Your task to perform on an android device: Search for Italian restaurants on Maps Image 0: 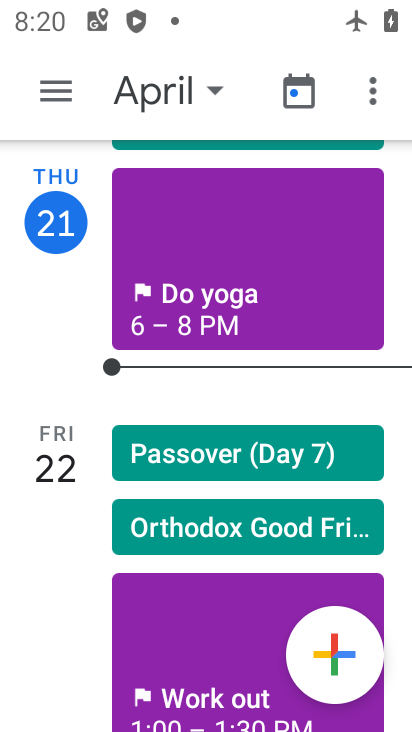
Step 0: press home button
Your task to perform on an android device: Search for Italian restaurants on Maps Image 1: 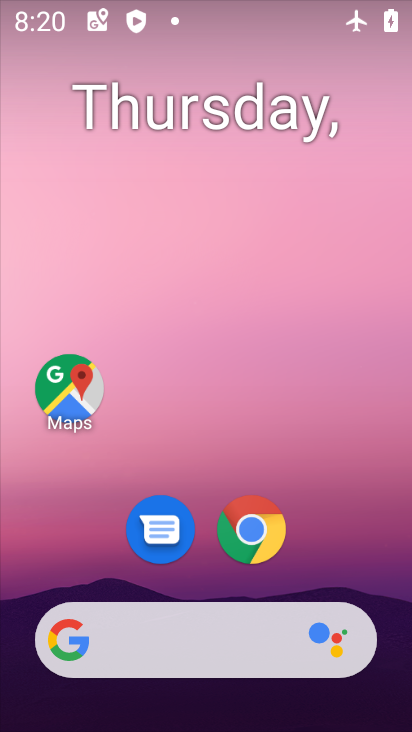
Step 1: drag from (188, 636) to (346, 9)
Your task to perform on an android device: Search for Italian restaurants on Maps Image 2: 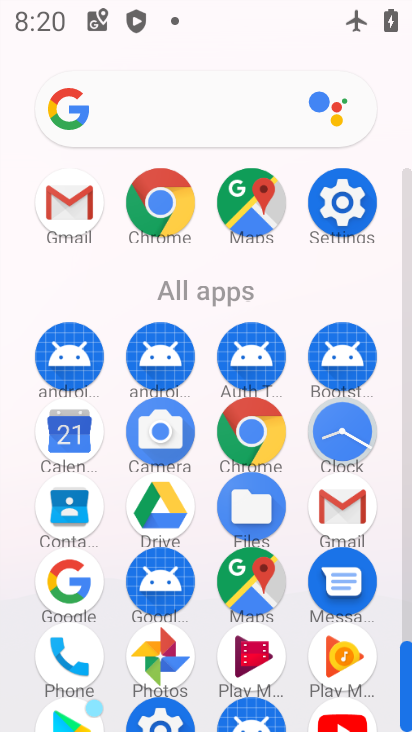
Step 2: click (257, 205)
Your task to perform on an android device: Search for Italian restaurants on Maps Image 3: 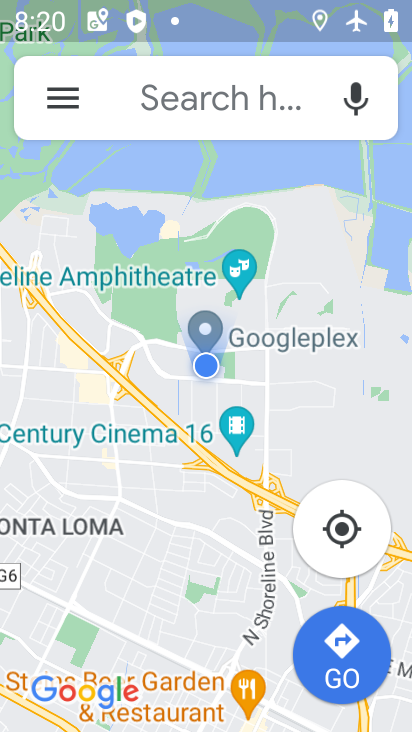
Step 3: click (169, 100)
Your task to perform on an android device: Search for Italian restaurants on Maps Image 4: 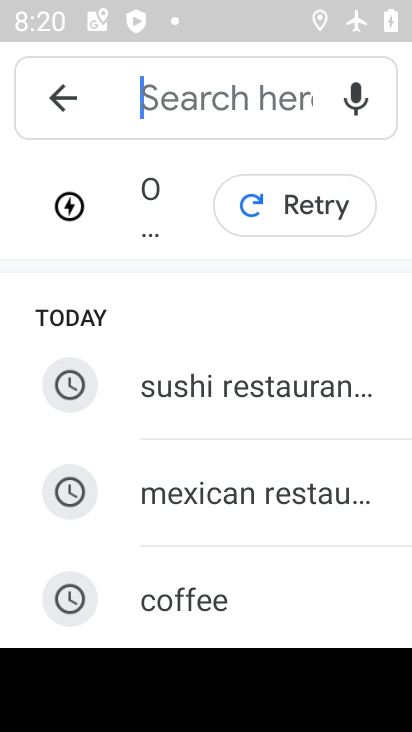
Step 4: drag from (217, 541) to (294, 308)
Your task to perform on an android device: Search for Italian restaurants on Maps Image 5: 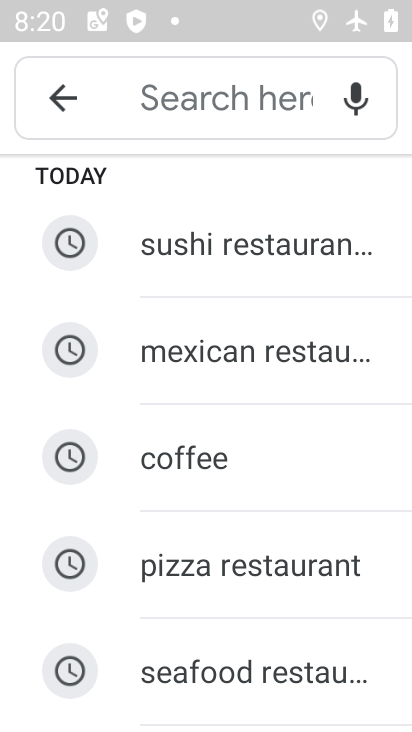
Step 5: drag from (244, 645) to (377, 158)
Your task to perform on an android device: Search for Italian restaurants on Maps Image 6: 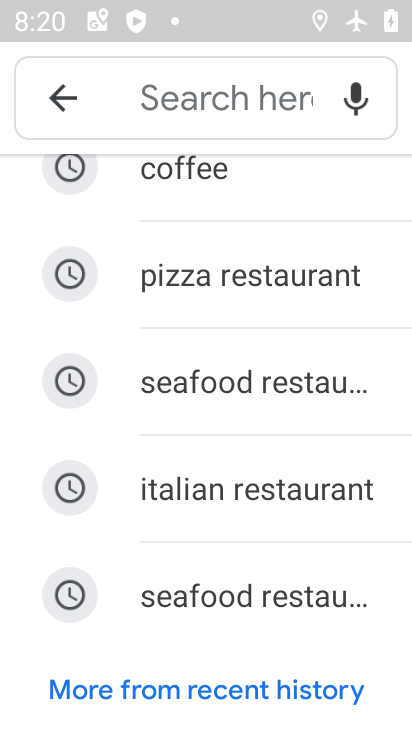
Step 6: click (254, 491)
Your task to perform on an android device: Search for Italian restaurants on Maps Image 7: 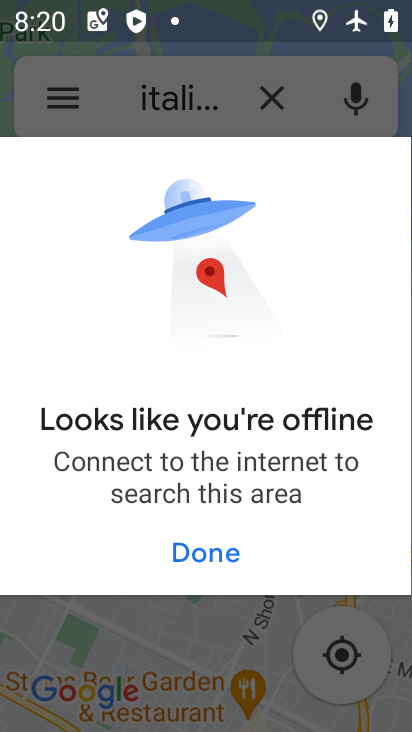
Step 7: press home button
Your task to perform on an android device: Search for Italian restaurants on Maps Image 8: 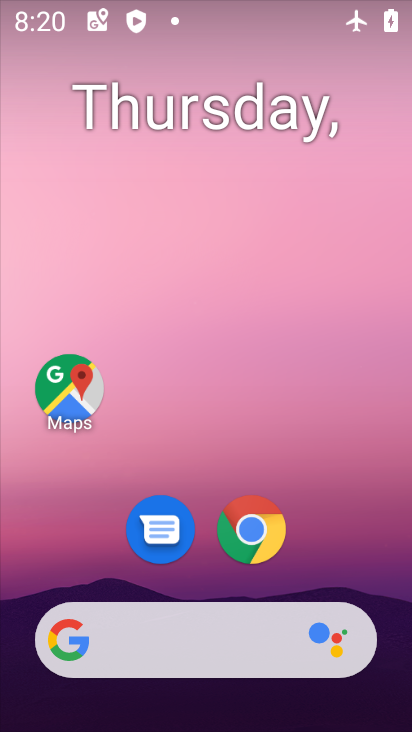
Step 8: drag from (152, 523) to (282, 54)
Your task to perform on an android device: Search for Italian restaurants on Maps Image 9: 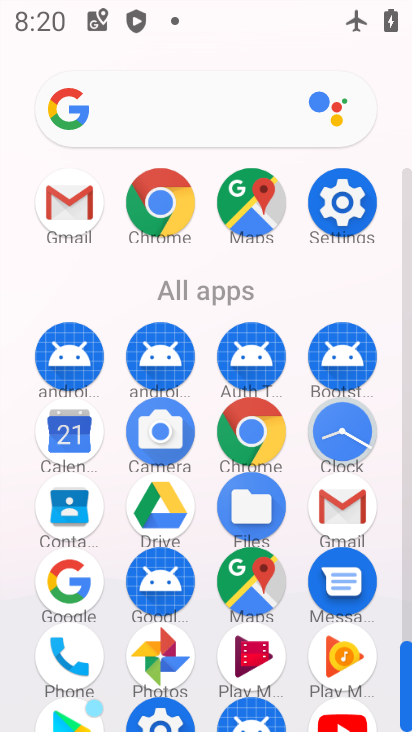
Step 9: click (338, 211)
Your task to perform on an android device: Search for Italian restaurants on Maps Image 10: 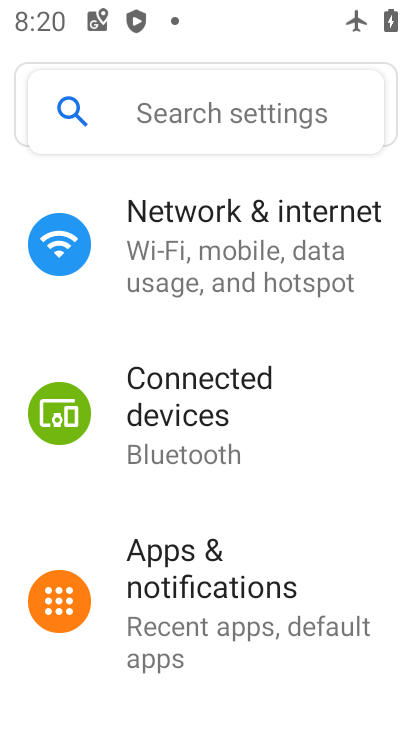
Step 10: click (243, 250)
Your task to perform on an android device: Search for Italian restaurants on Maps Image 11: 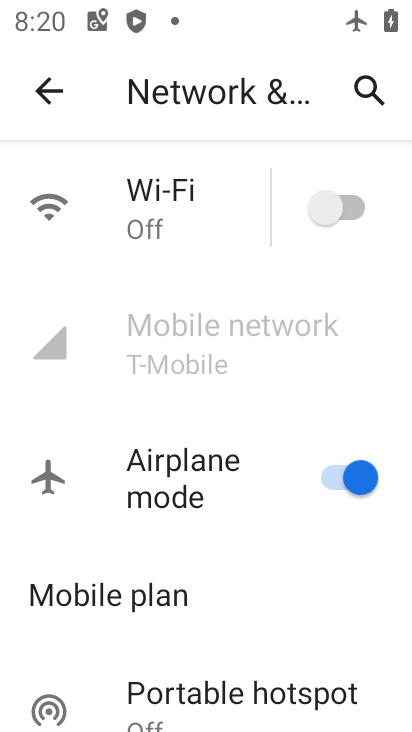
Step 11: click (352, 206)
Your task to perform on an android device: Search for Italian restaurants on Maps Image 12: 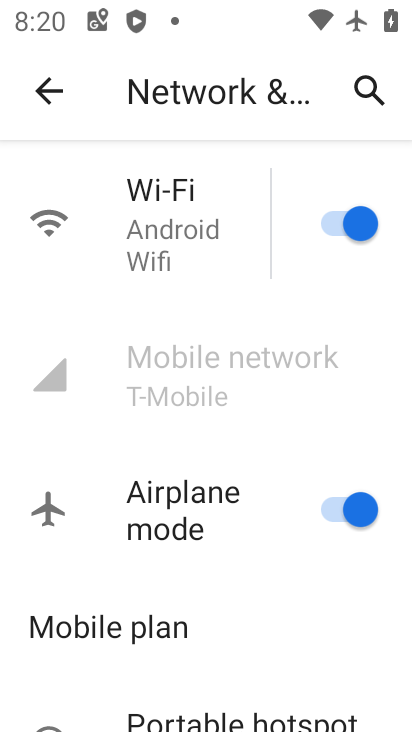
Step 12: task complete